Your task to perform on an android device: Open the web browser Image 0: 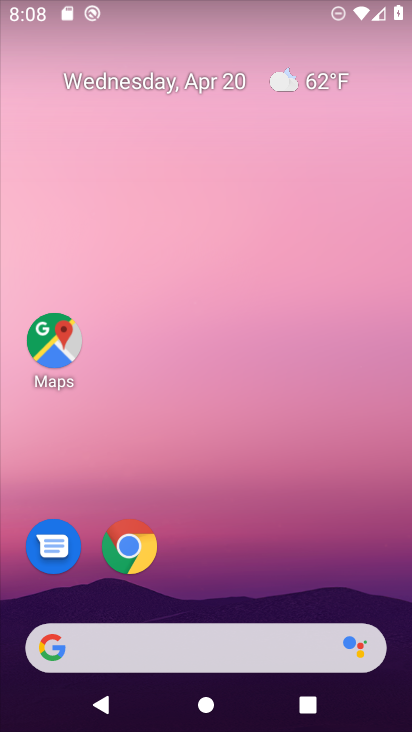
Step 0: click (132, 546)
Your task to perform on an android device: Open the web browser Image 1: 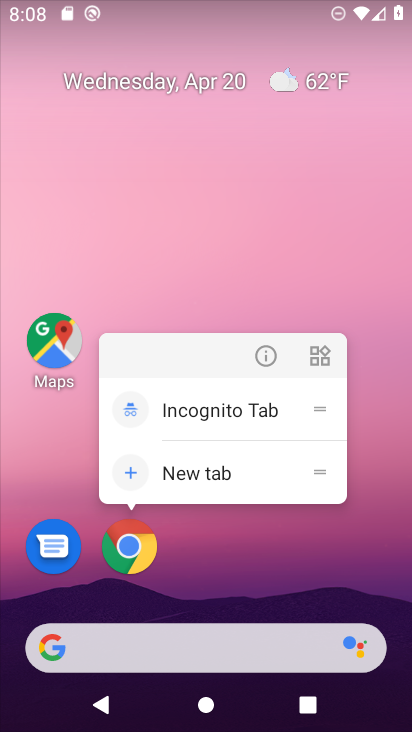
Step 1: click (132, 546)
Your task to perform on an android device: Open the web browser Image 2: 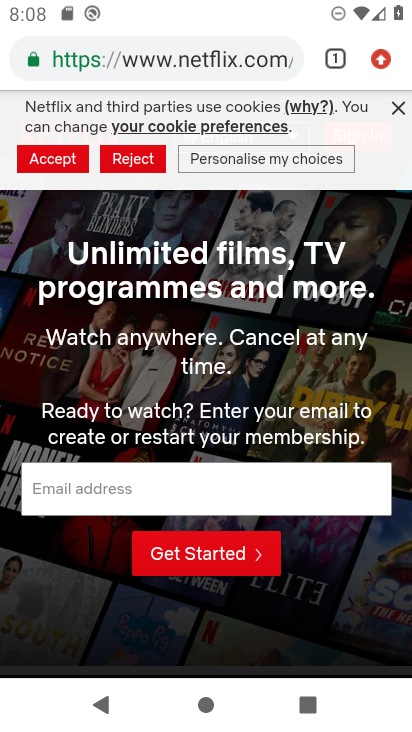
Step 2: click (378, 61)
Your task to perform on an android device: Open the web browser Image 3: 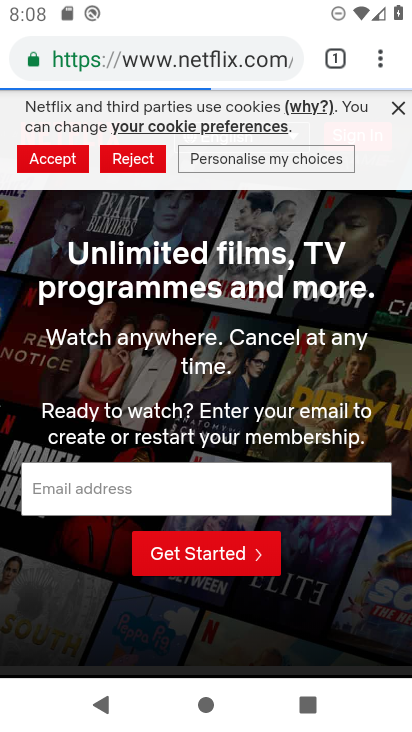
Step 3: drag from (378, 61) to (239, 196)
Your task to perform on an android device: Open the web browser Image 4: 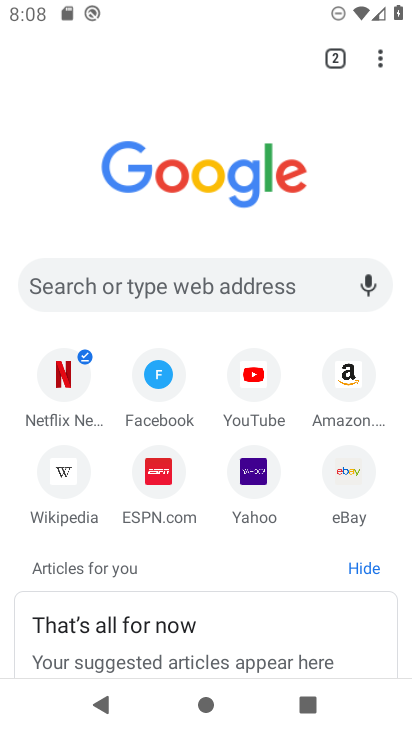
Step 4: click (218, 279)
Your task to perform on an android device: Open the web browser Image 5: 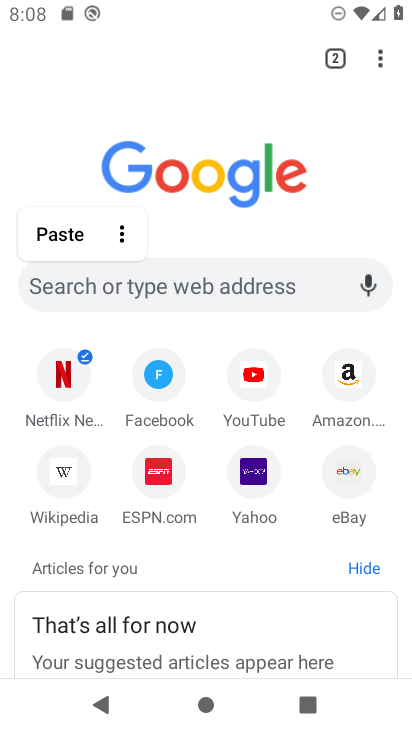
Step 5: click (218, 279)
Your task to perform on an android device: Open the web browser Image 6: 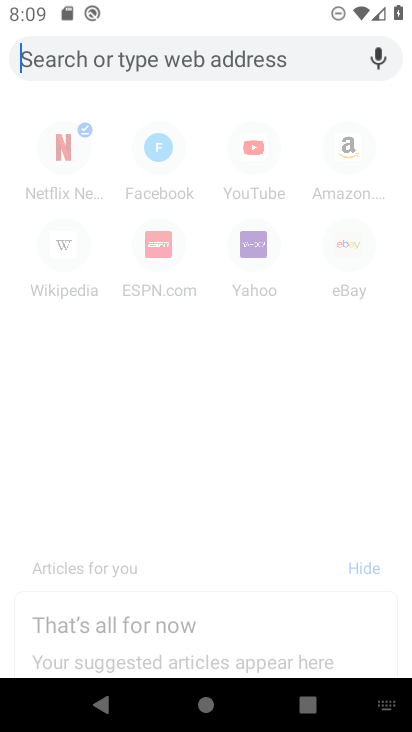
Step 6: task complete